Your task to perform on an android device: turn on sleep mode Image 0: 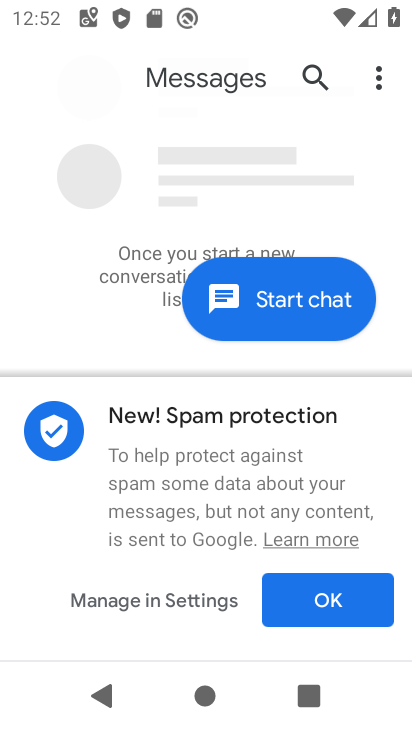
Step 0: press home button
Your task to perform on an android device: turn on sleep mode Image 1: 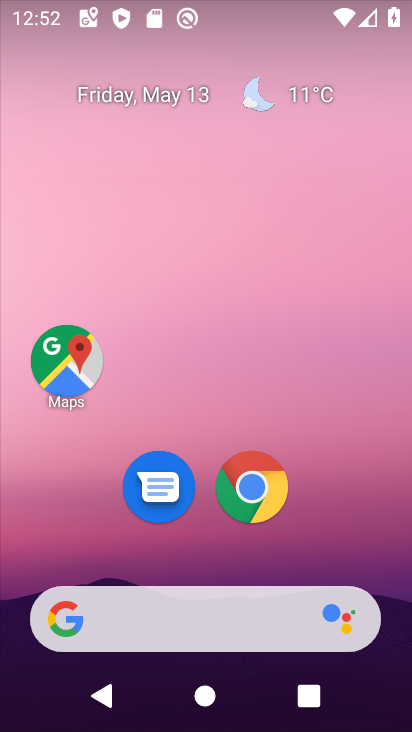
Step 1: drag from (309, 522) to (344, 173)
Your task to perform on an android device: turn on sleep mode Image 2: 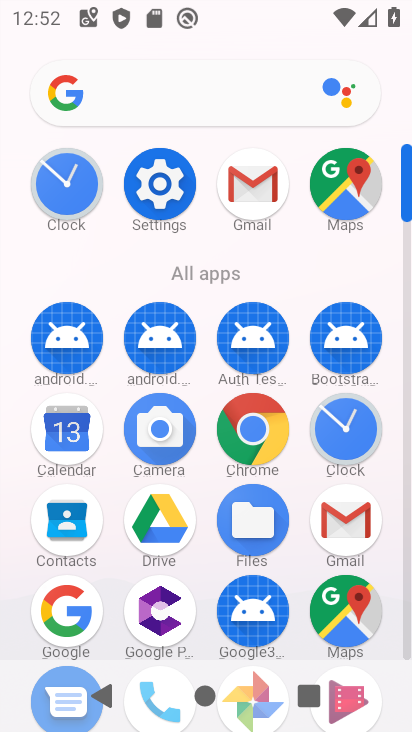
Step 2: click (194, 196)
Your task to perform on an android device: turn on sleep mode Image 3: 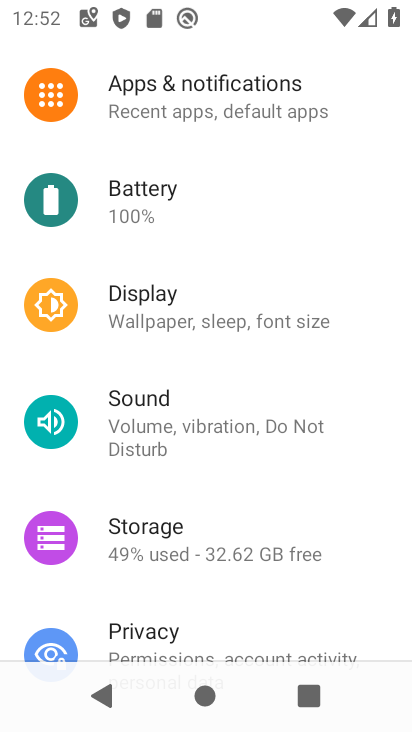
Step 3: click (193, 315)
Your task to perform on an android device: turn on sleep mode Image 4: 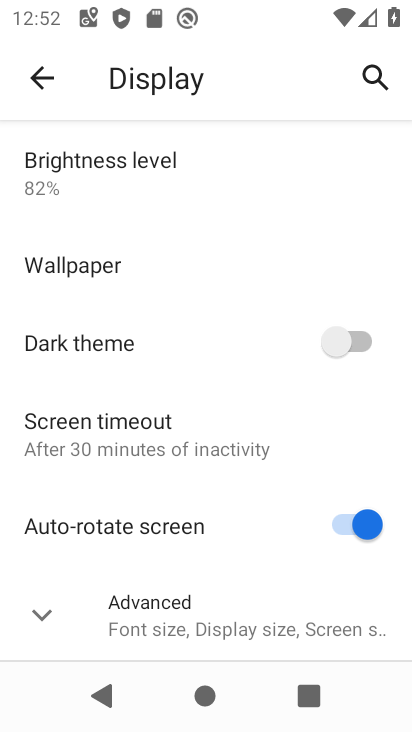
Step 4: drag from (220, 576) to (225, 372)
Your task to perform on an android device: turn on sleep mode Image 5: 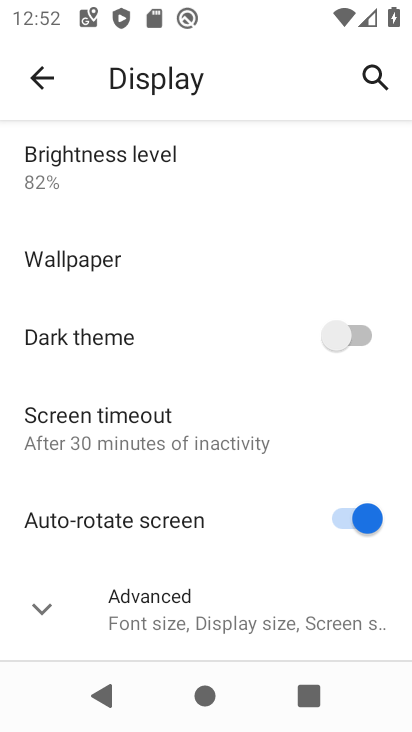
Step 5: click (47, 614)
Your task to perform on an android device: turn on sleep mode Image 6: 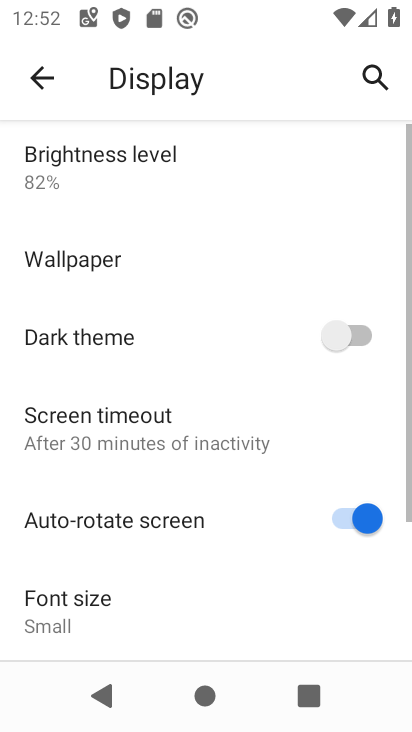
Step 6: task complete